Your task to perform on an android device: open a bookmark in the chrome app Image 0: 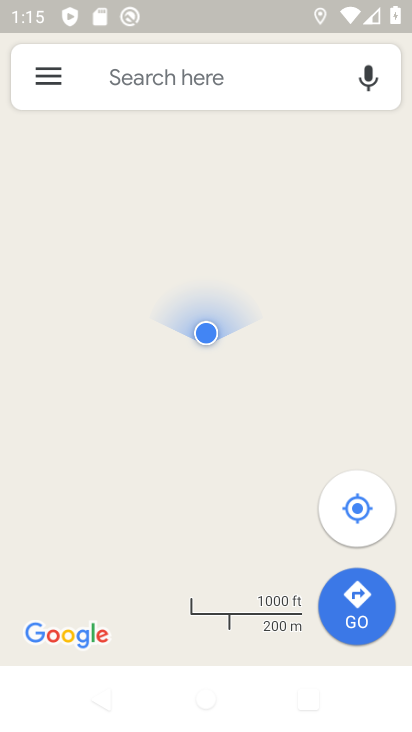
Step 0: press back button
Your task to perform on an android device: open a bookmark in the chrome app Image 1: 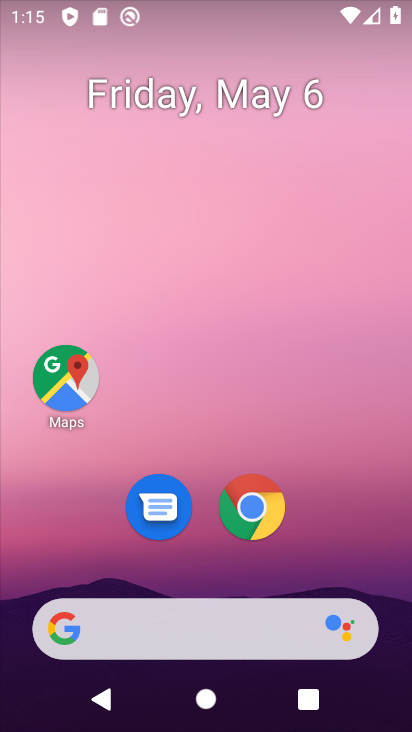
Step 1: press home button
Your task to perform on an android device: open a bookmark in the chrome app Image 2: 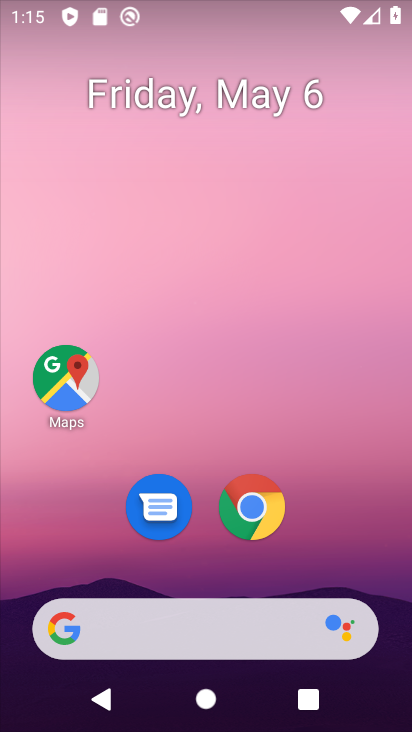
Step 2: click (252, 513)
Your task to perform on an android device: open a bookmark in the chrome app Image 3: 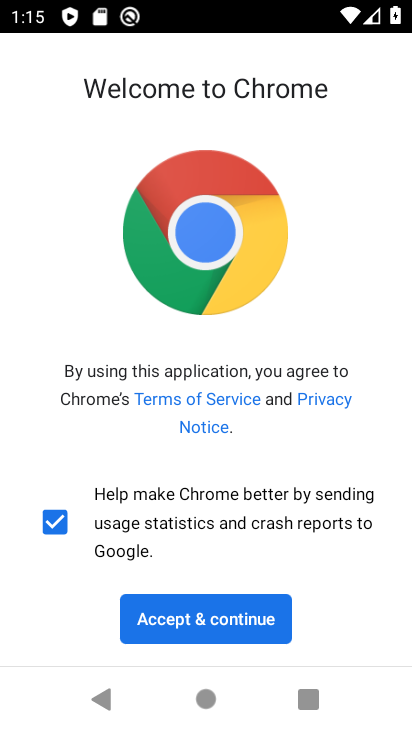
Step 3: click (244, 624)
Your task to perform on an android device: open a bookmark in the chrome app Image 4: 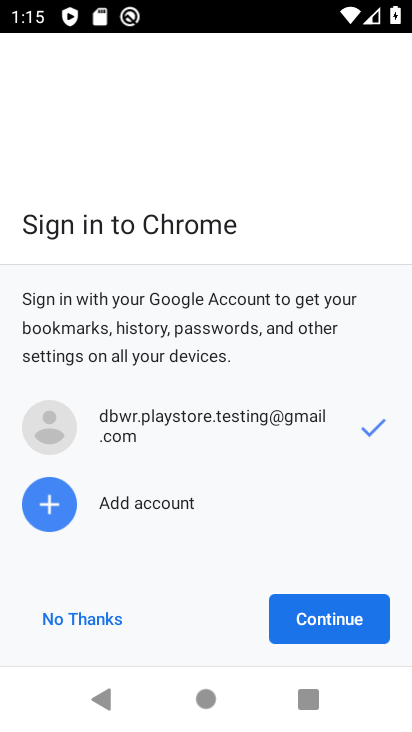
Step 4: click (329, 627)
Your task to perform on an android device: open a bookmark in the chrome app Image 5: 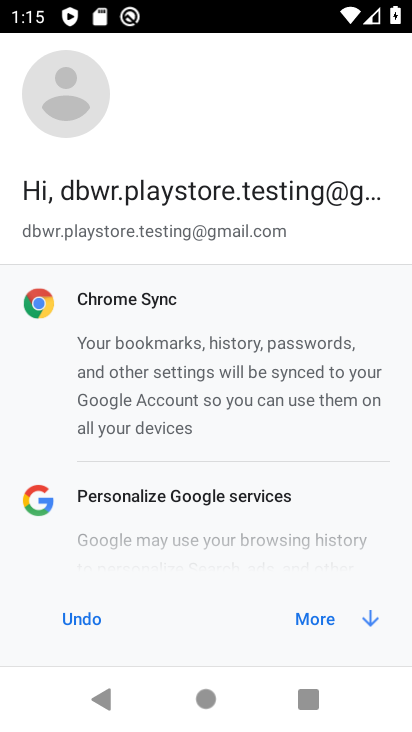
Step 5: click (329, 627)
Your task to perform on an android device: open a bookmark in the chrome app Image 6: 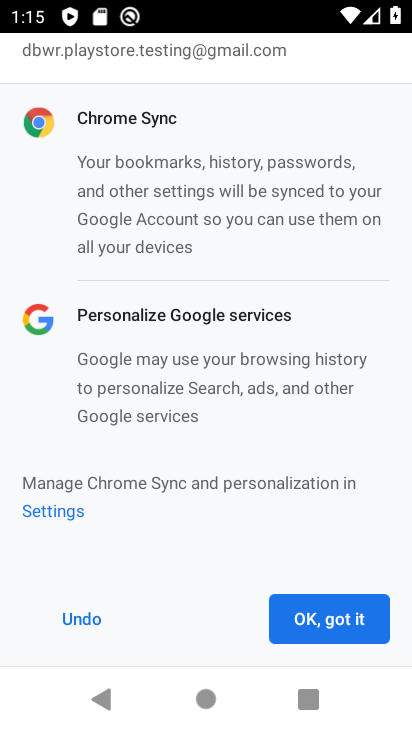
Step 6: click (329, 627)
Your task to perform on an android device: open a bookmark in the chrome app Image 7: 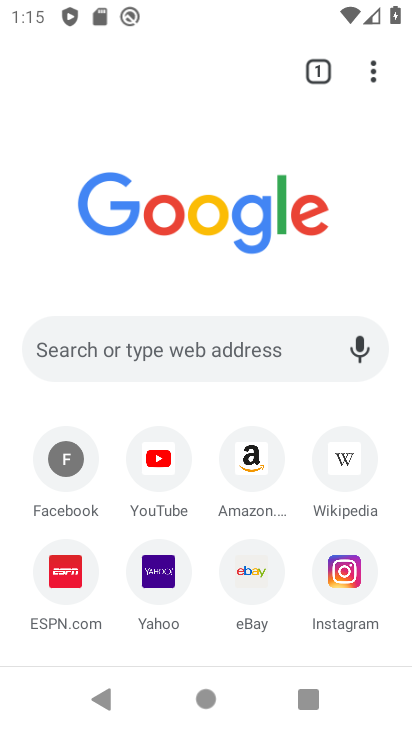
Step 7: drag from (380, 70) to (281, 273)
Your task to perform on an android device: open a bookmark in the chrome app Image 8: 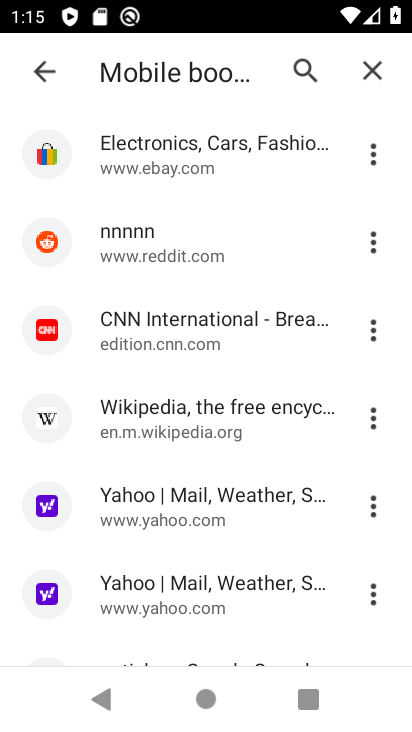
Step 8: click (176, 507)
Your task to perform on an android device: open a bookmark in the chrome app Image 9: 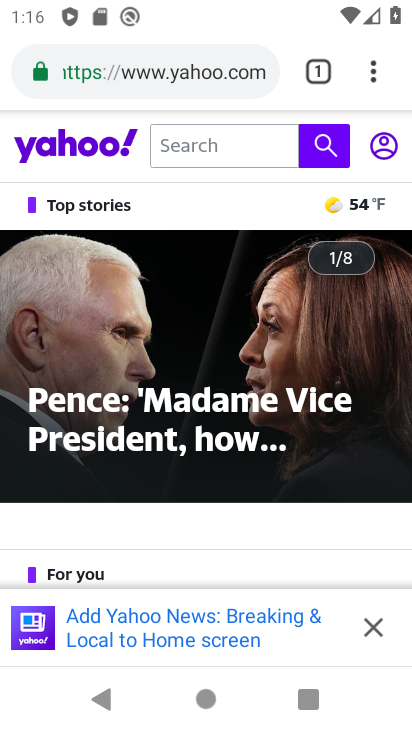
Step 9: task complete